Your task to perform on an android device: turn off javascript in the chrome app Image 0: 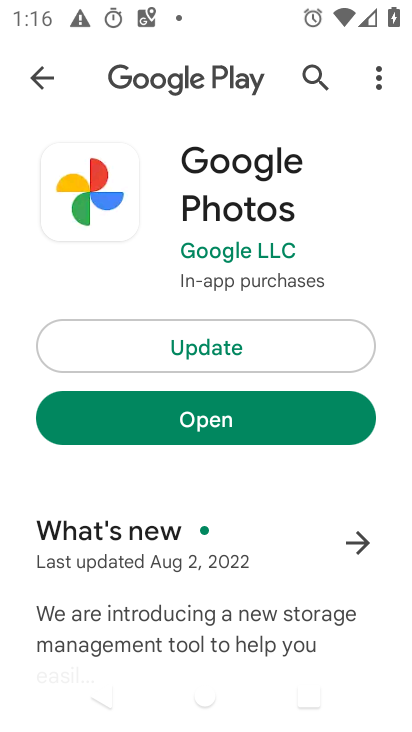
Step 0: press back button
Your task to perform on an android device: turn off javascript in the chrome app Image 1: 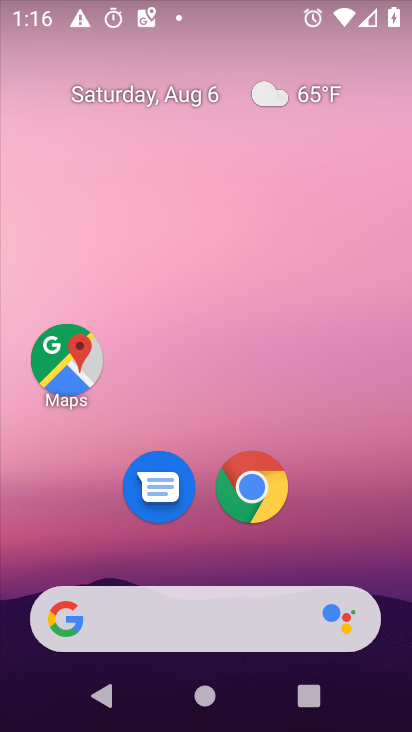
Step 1: click (245, 471)
Your task to perform on an android device: turn off javascript in the chrome app Image 2: 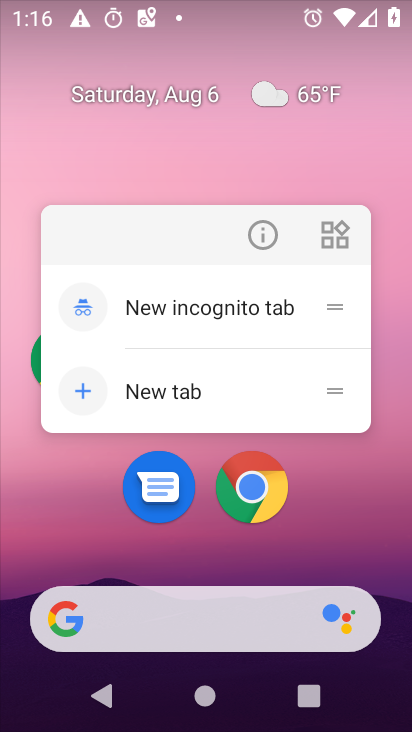
Step 2: click (272, 487)
Your task to perform on an android device: turn off javascript in the chrome app Image 3: 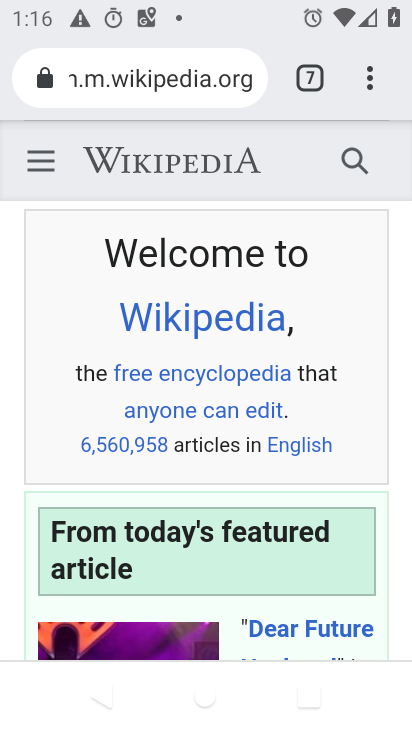
Step 3: drag from (367, 77) to (175, 514)
Your task to perform on an android device: turn off javascript in the chrome app Image 4: 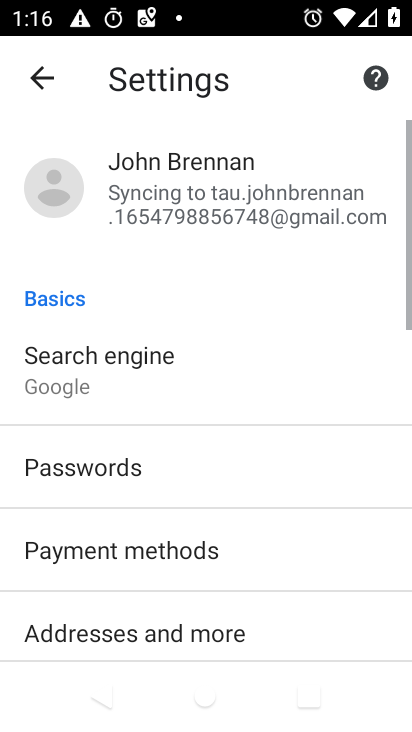
Step 4: drag from (231, 608) to (335, 148)
Your task to perform on an android device: turn off javascript in the chrome app Image 5: 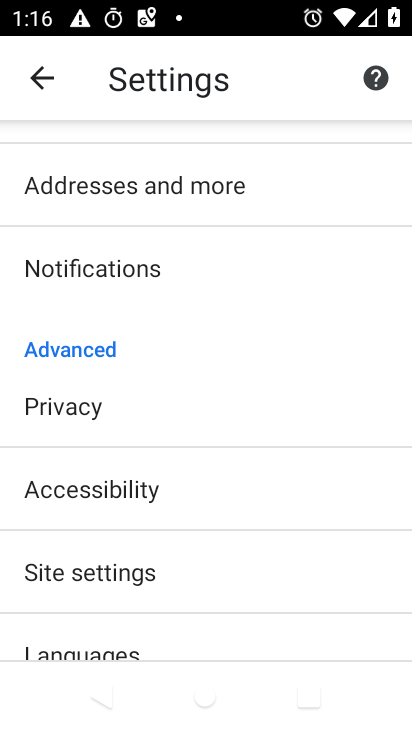
Step 5: drag from (114, 598) to (175, 359)
Your task to perform on an android device: turn off javascript in the chrome app Image 6: 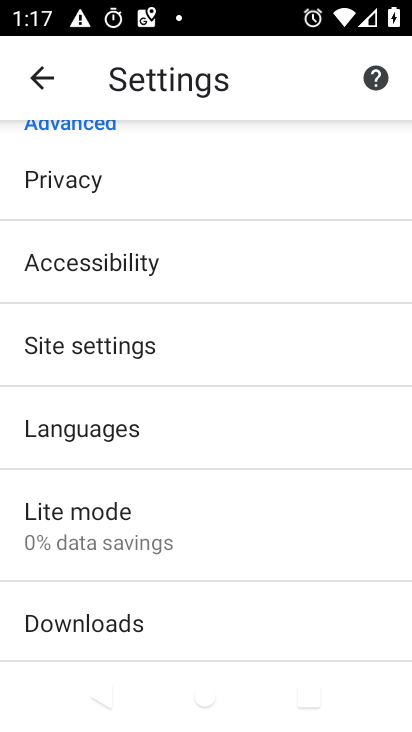
Step 6: click (173, 350)
Your task to perform on an android device: turn off javascript in the chrome app Image 7: 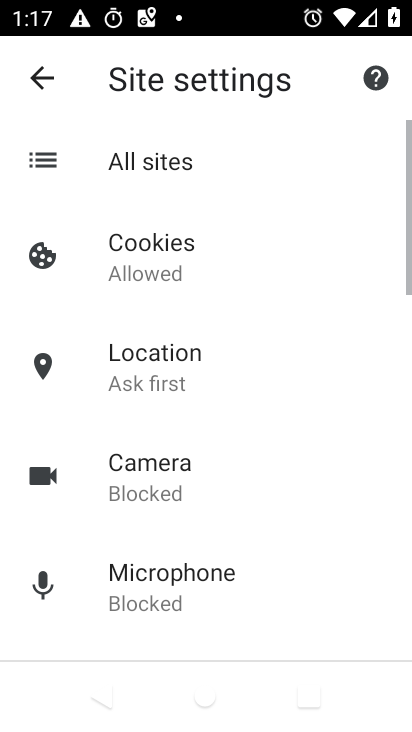
Step 7: drag from (244, 562) to (259, 223)
Your task to perform on an android device: turn off javascript in the chrome app Image 8: 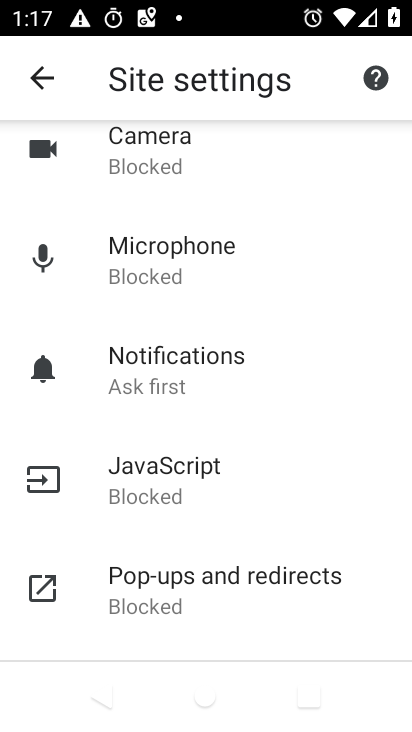
Step 8: click (146, 490)
Your task to perform on an android device: turn off javascript in the chrome app Image 9: 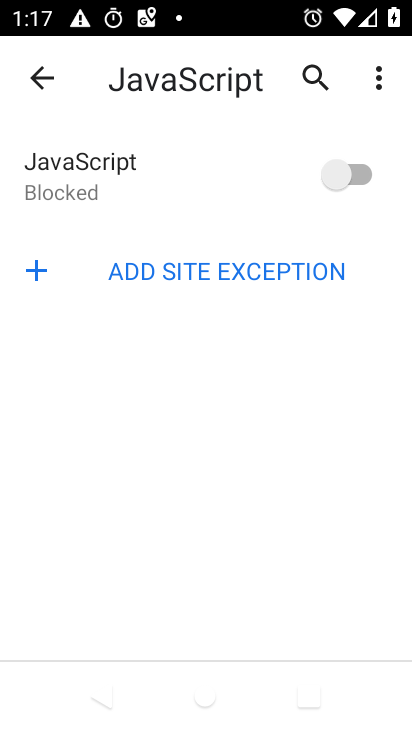
Step 9: task complete